Your task to perform on an android device: move an email to a new category in the gmail app Image 0: 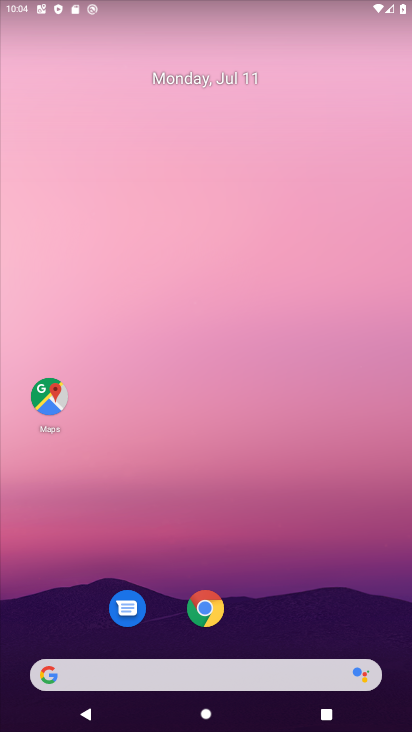
Step 0: drag from (115, 547) to (301, 141)
Your task to perform on an android device: move an email to a new category in the gmail app Image 1: 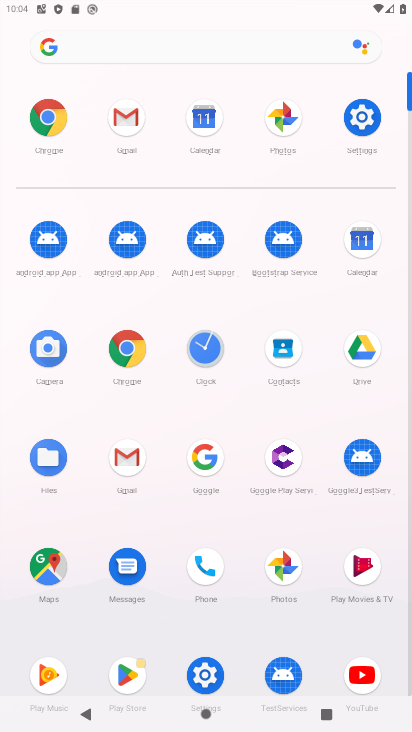
Step 1: click (124, 119)
Your task to perform on an android device: move an email to a new category in the gmail app Image 2: 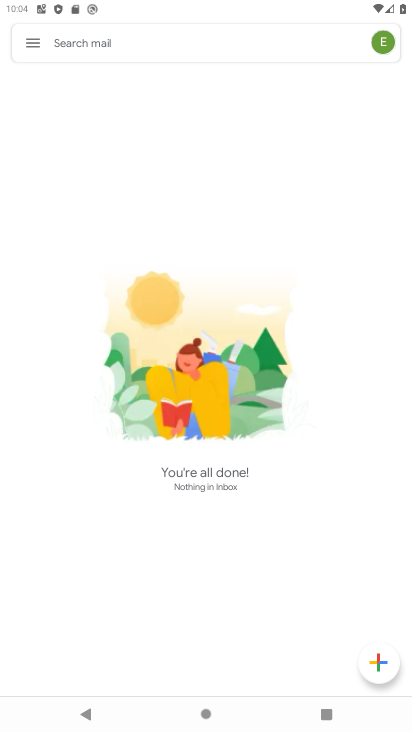
Step 2: click (31, 52)
Your task to perform on an android device: move an email to a new category in the gmail app Image 3: 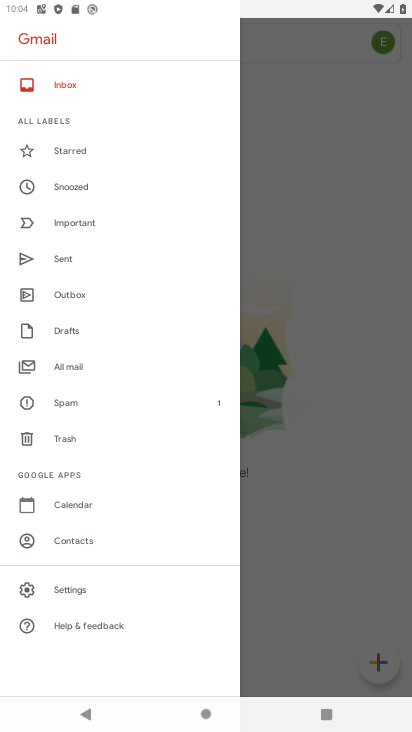
Step 3: click (76, 82)
Your task to perform on an android device: move an email to a new category in the gmail app Image 4: 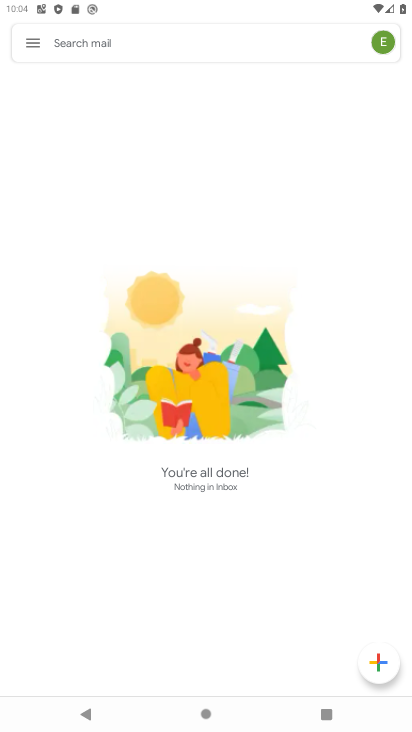
Step 4: task complete